Your task to perform on an android device: open app "LiveIn - Share Your Moment" (install if not already installed) Image 0: 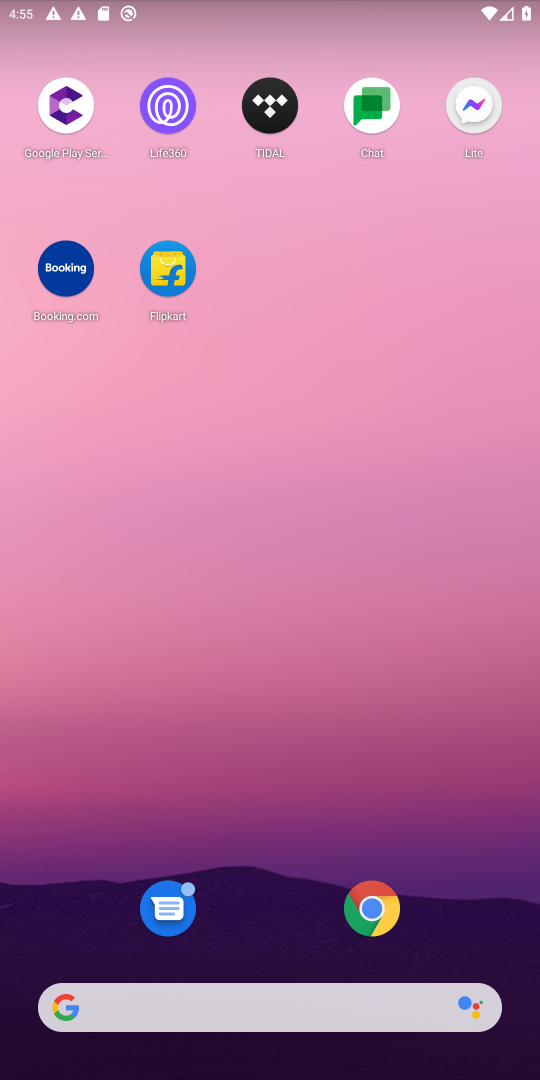
Step 0: drag from (232, 683) to (147, 235)
Your task to perform on an android device: open app "LiveIn - Share Your Moment" (install if not already installed) Image 1: 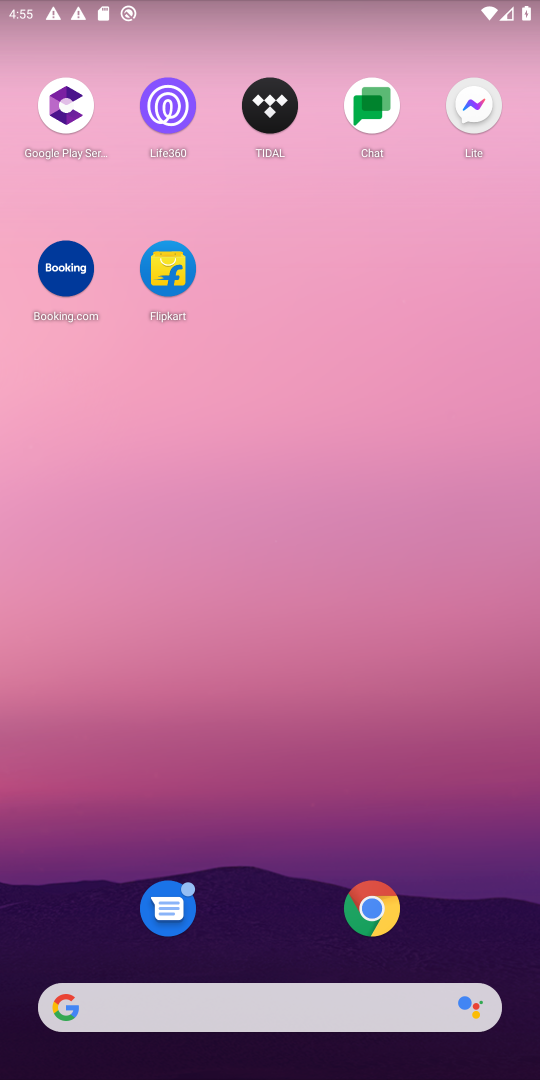
Step 1: drag from (267, 629) to (364, 76)
Your task to perform on an android device: open app "LiveIn - Share Your Moment" (install if not already installed) Image 2: 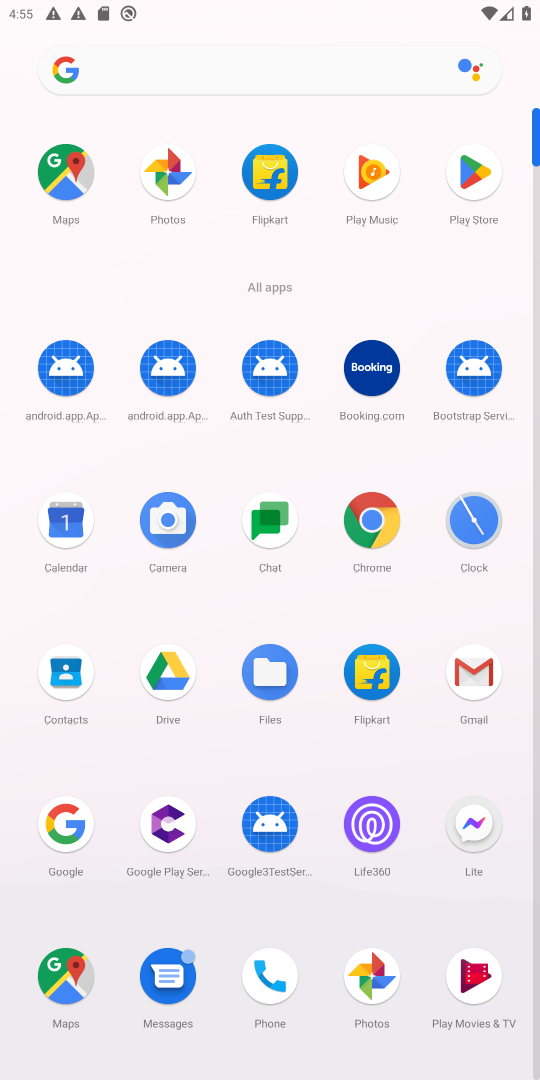
Step 2: click (471, 177)
Your task to perform on an android device: open app "LiveIn - Share Your Moment" (install if not already installed) Image 3: 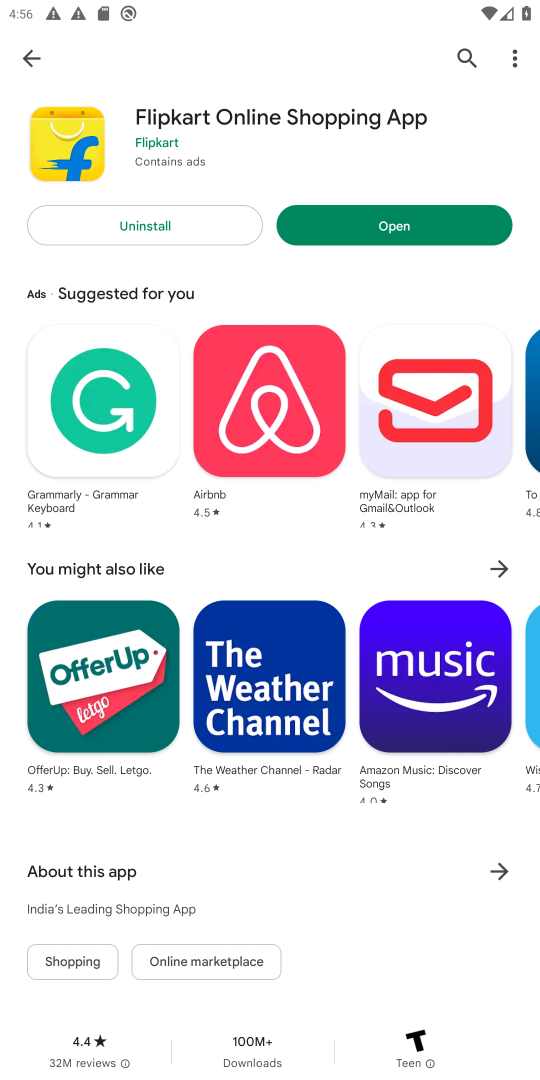
Step 3: click (20, 63)
Your task to perform on an android device: open app "LiveIn - Share Your Moment" (install if not already installed) Image 4: 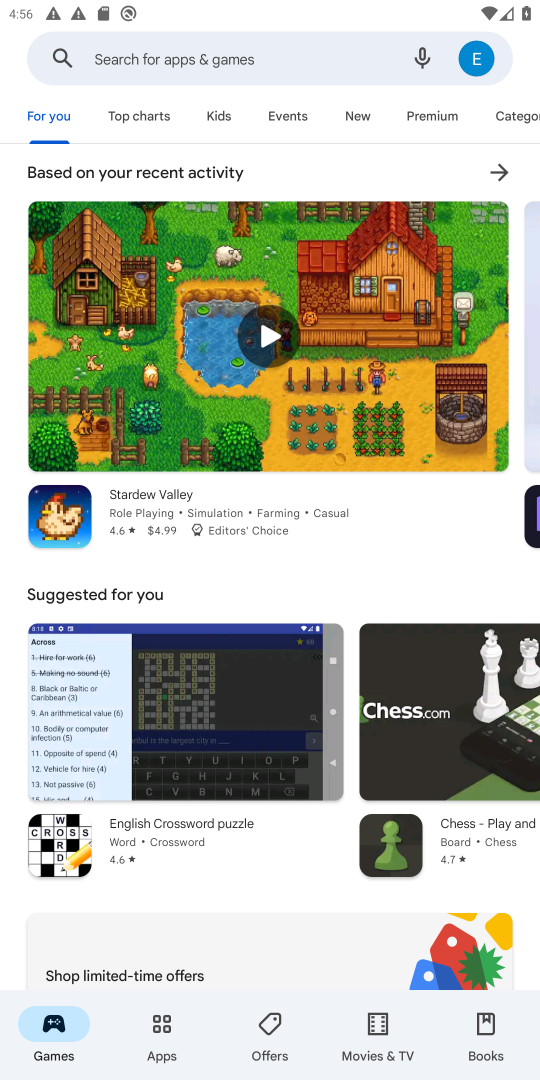
Step 4: click (286, 59)
Your task to perform on an android device: open app "LiveIn - Share Your Moment" (install if not already installed) Image 5: 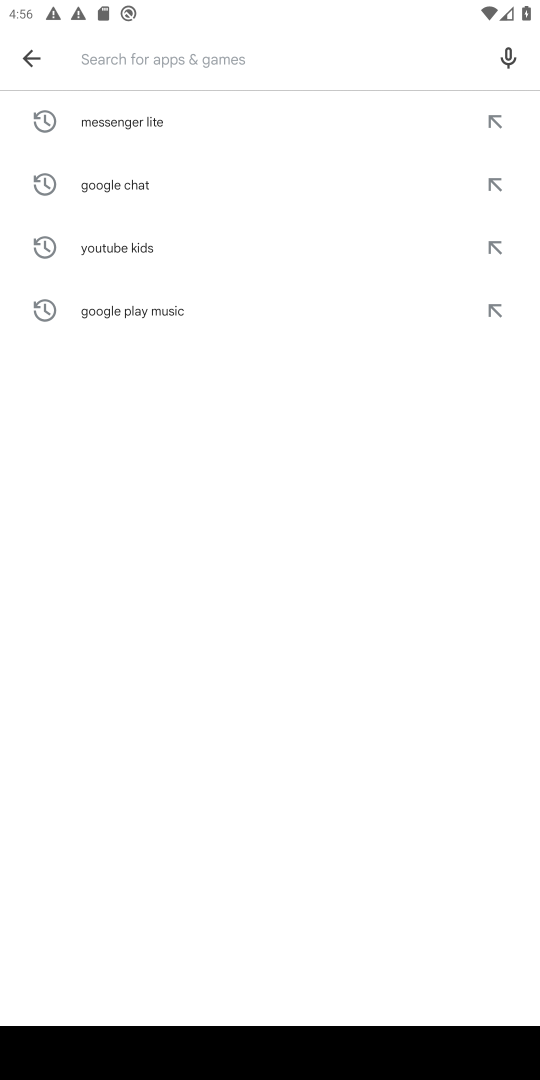
Step 5: type "LiveIn - Share Your Moment"
Your task to perform on an android device: open app "LiveIn - Share Your Moment" (install if not already installed) Image 6: 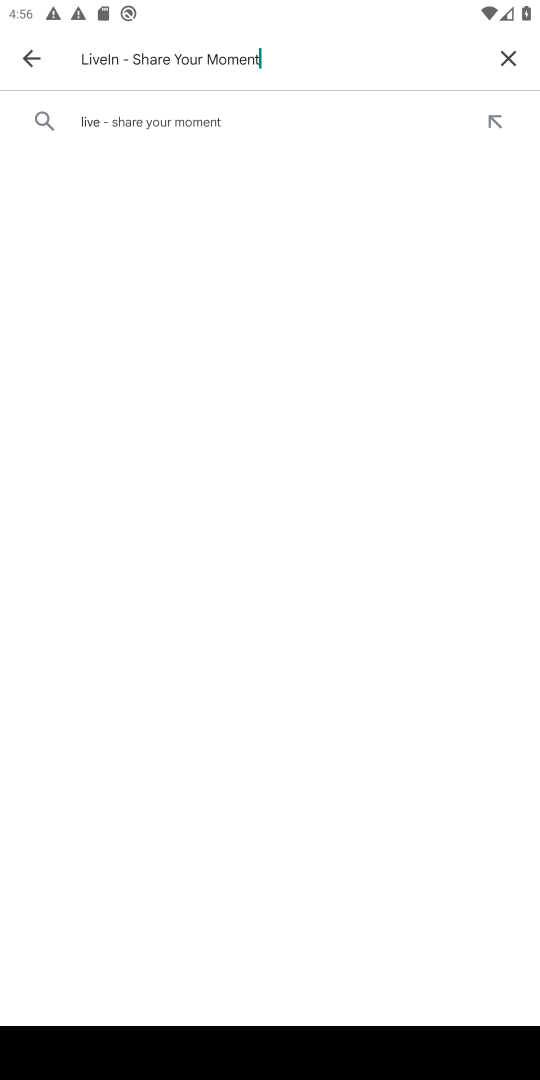
Step 6: click (181, 110)
Your task to perform on an android device: open app "LiveIn - Share Your Moment" (install if not already installed) Image 7: 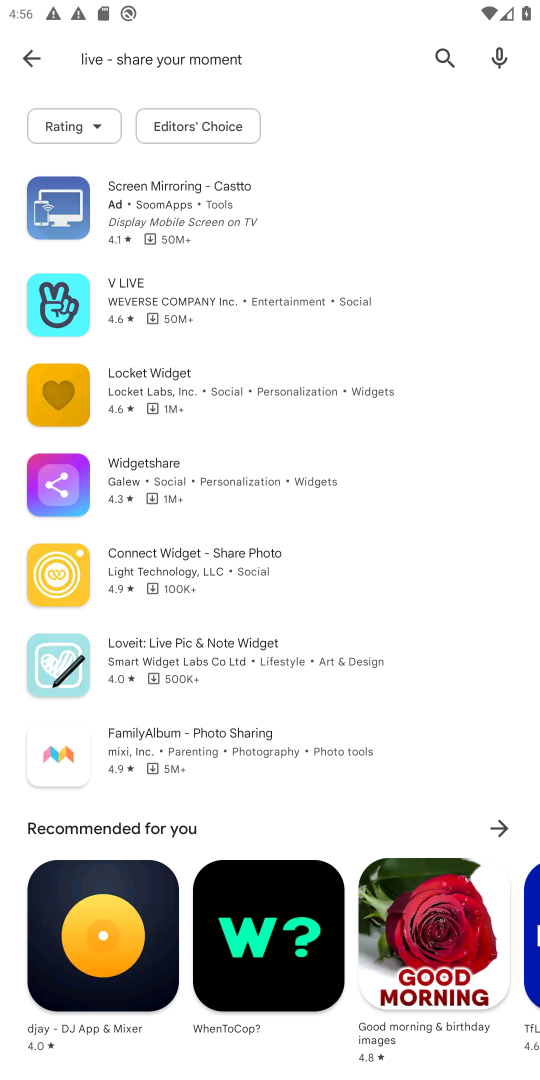
Step 7: task complete